Your task to perform on an android device: turn smart compose on in the gmail app Image 0: 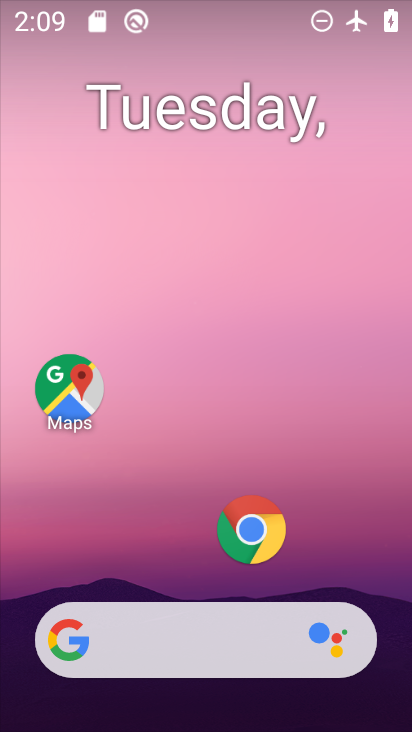
Step 0: drag from (237, 678) to (359, 27)
Your task to perform on an android device: turn smart compose on in the gmail app Image 1: 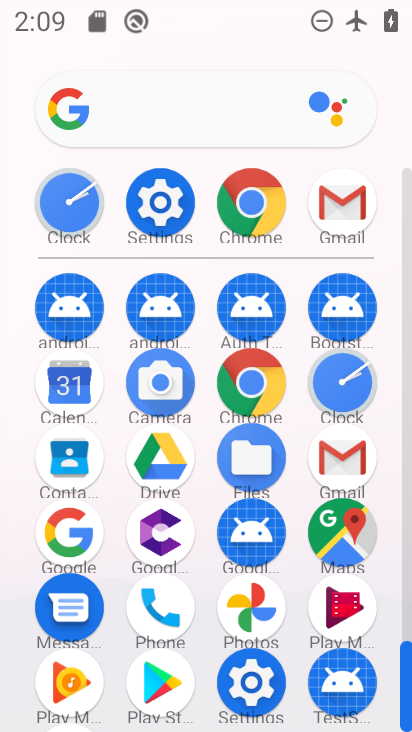
Step 1: click (347, 217)
Your task to perform on an android device: turn smart compose on in the gmail app Image 2: 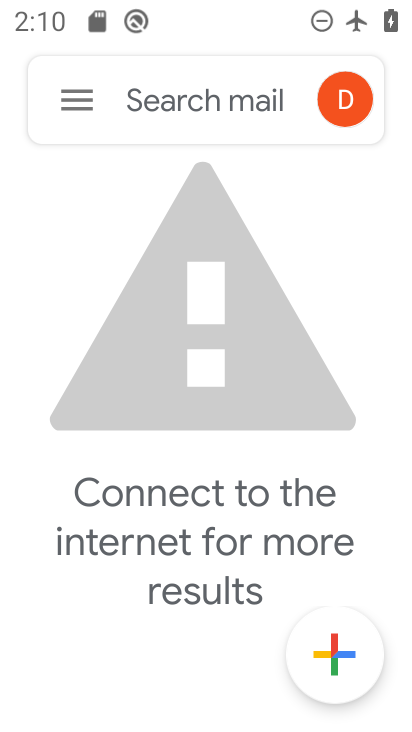
Step 2: click (87, 98)
Your task to perform on an android device: turn smart compose on in the gmail app Image 3: 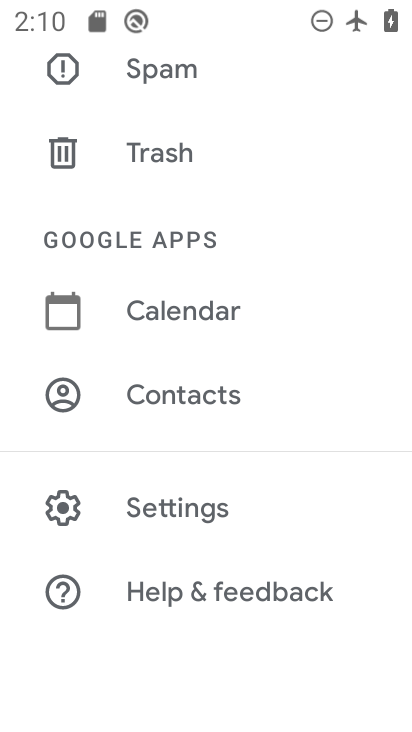
Step 3: click (149, 500)
Your task to perform on an android device: turn smart compose on in the gmail app Image 4: 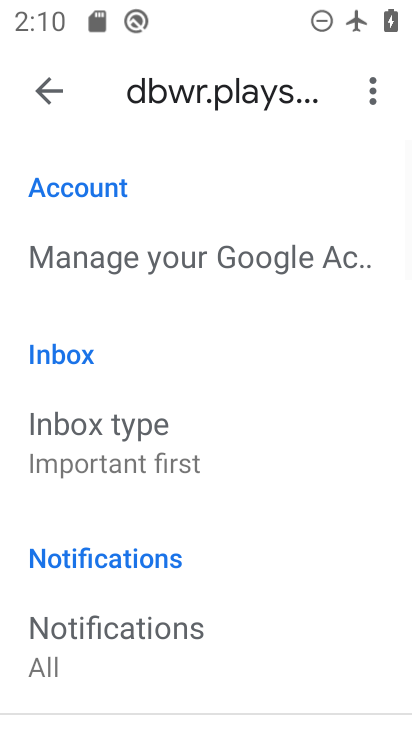
Step 4: drag from (149, 500) to (178, 151)
Your task to perform on an android device: turn smart compose on in the gmail app Image 5: 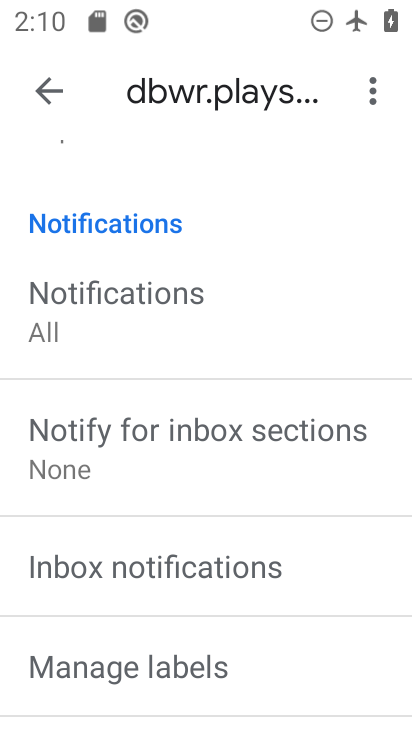
Step 5: drag from (128, 550) to (202, 93)
Your task to perform on an android device: turn smart compose on in the gmail app Image 6: 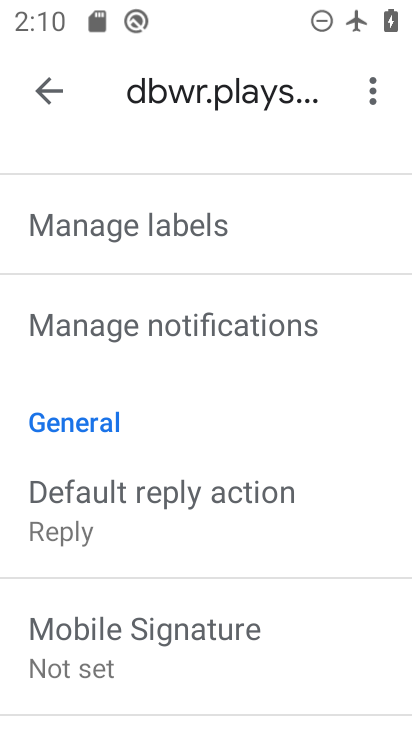
Step 6: drag from (125, 659) to (247, 128)
Your task to perform on an android device: turn smart compose on in the gmail app Image 7: 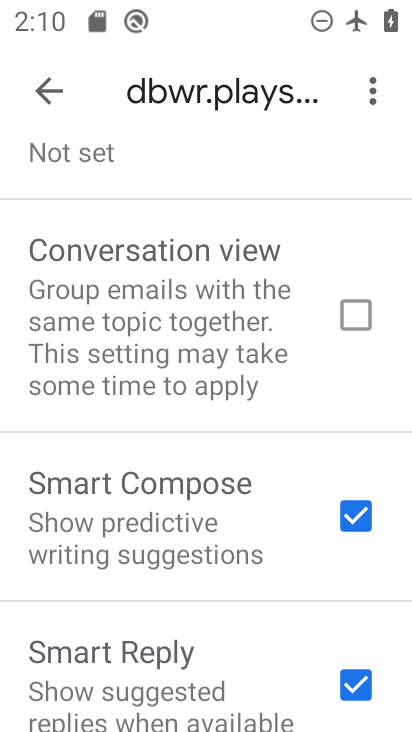
Step 7: click (331, 524)
Your task to perform on an android device: turn smart compose on in the gmail app Image 8: 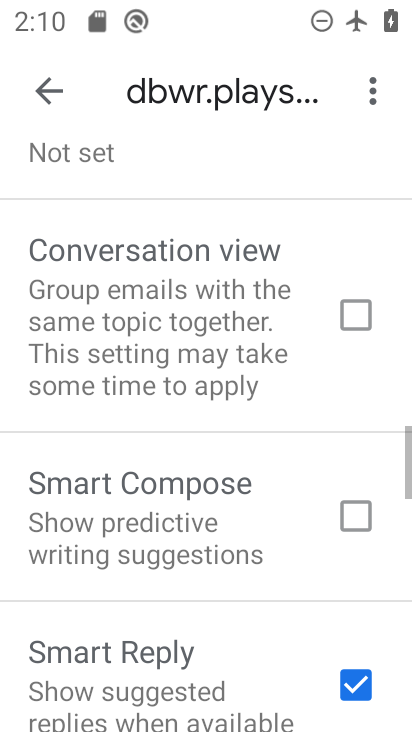
Step 8: click (331, 524)
Your task to perform on an android device: turn smart compose on in the gmail app Image 9: 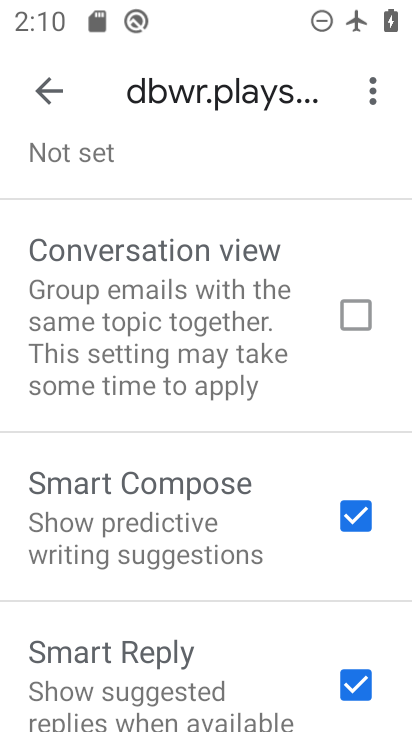
Step 9: task complete